Your task to perform on an android device: Go to notification settings Image 0: 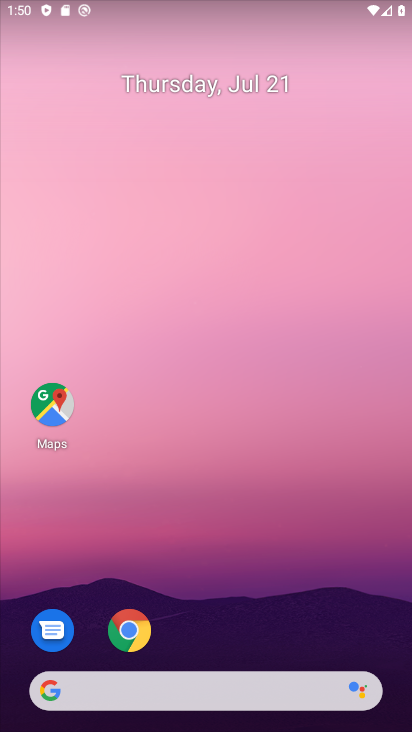
Step 0: drag from (281, 635) to (276, 20)
Your task to perform on an android device: Go to notification settings Image 1: 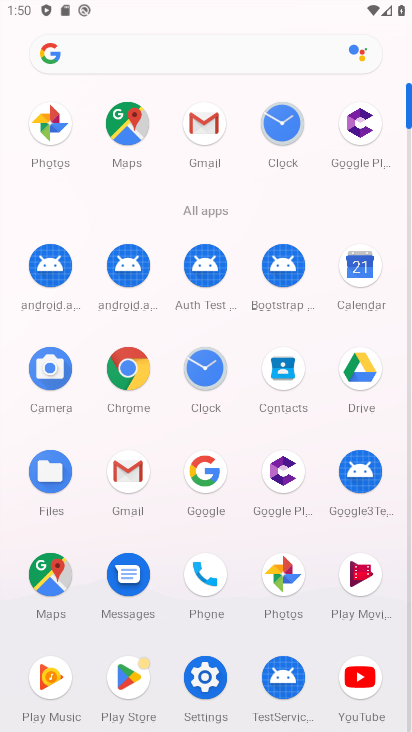
Step 1: click (185, 691)
Your task to perform on an android device: Go to notification settings Image 2: 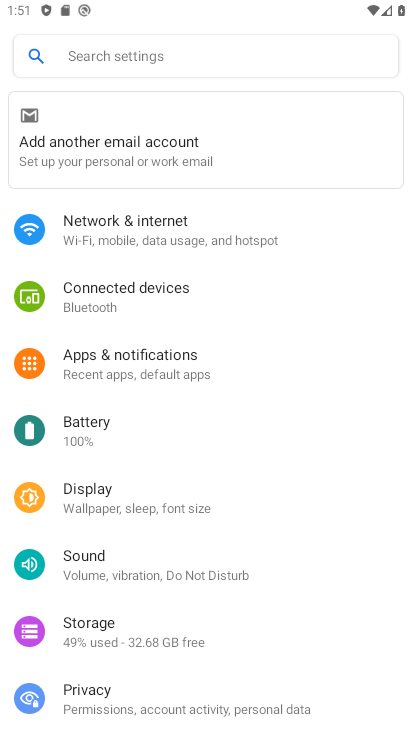
Step 2: click (146, 385)
Your task to perform on an android device: Go to notification settings Image 3: 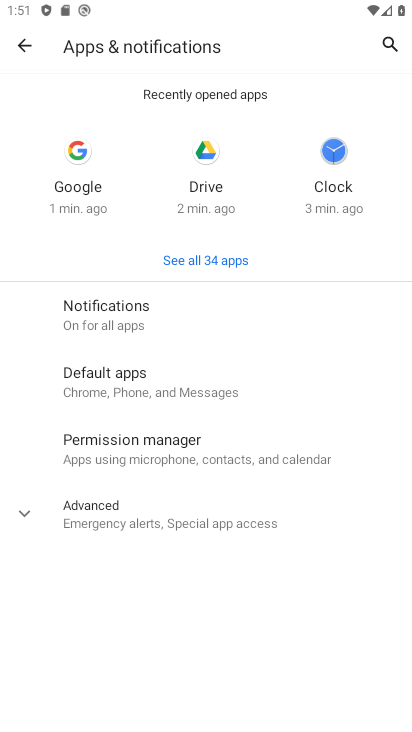
Step 3: task complete